Your task to perform on an android device: turn on showing notifications on the lock screen Image 0: 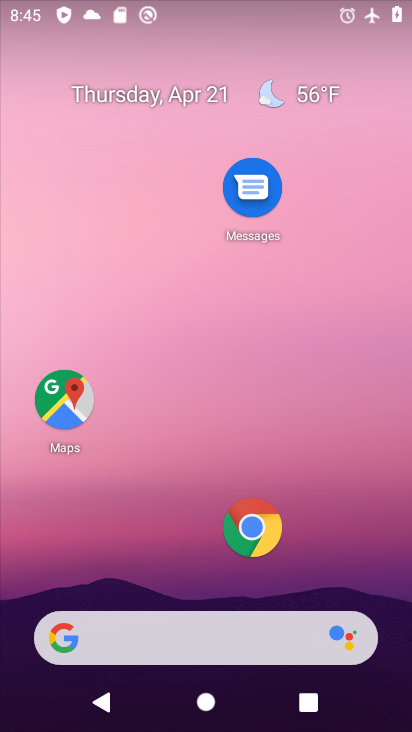
Step 0: drag from (154, 635) to (304, 111)
Your task to perform on an android device: turn on showing notifications on the lock screen Image 1: 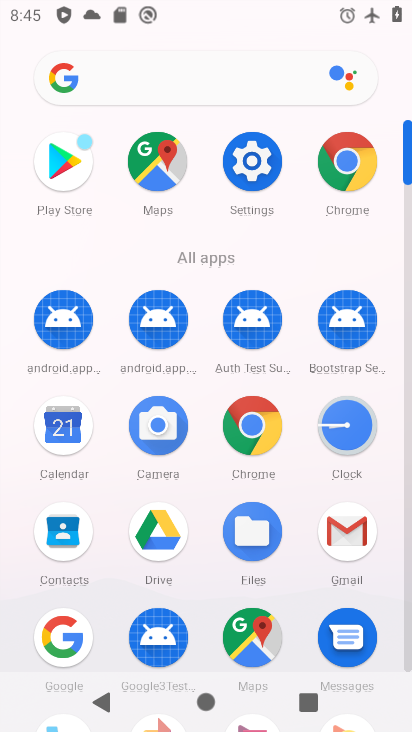
Step 1: click (254, 172)
Your task to perform on an android device: turn on showing notifications on the lock screen Image 2: 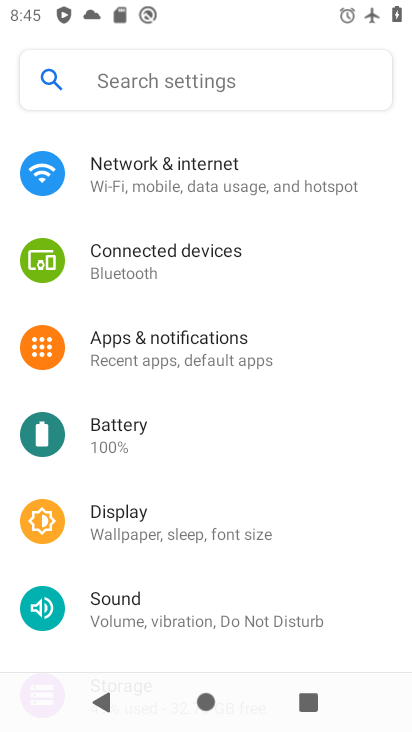
Step 2: click (207, 345)
Your task to perform on an android device: turn on showing notifications on the lock screen Image 3: 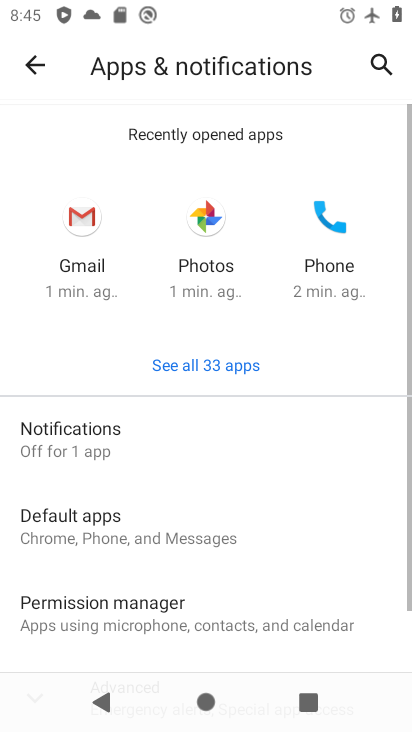
Step 3: click (85, 438)
Your task to perform on an android device: turn on showing notifications on the lock screen Image 4: 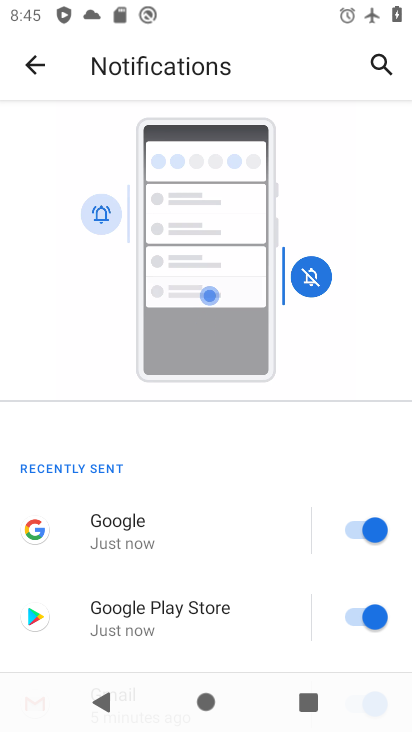
Step 4: drag from (130, 621) to (303, 84)
Your task to perform on an android device: turn on showing notifications on the lock screen Image 5: 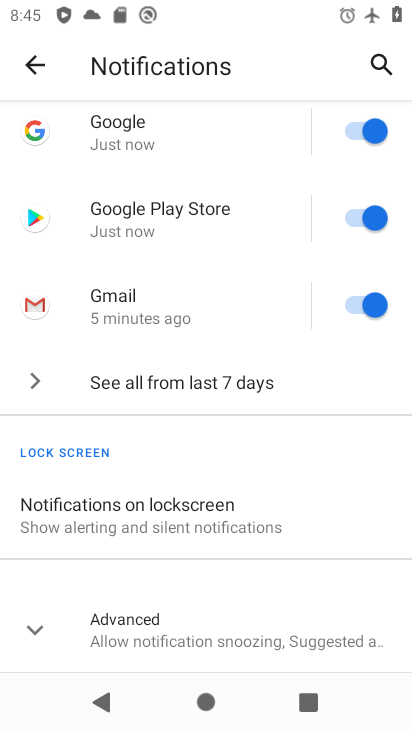
Step 5: click (169, 516)
Your task to perform on an android device: turn on showing notifications on the lock screen Image 6: 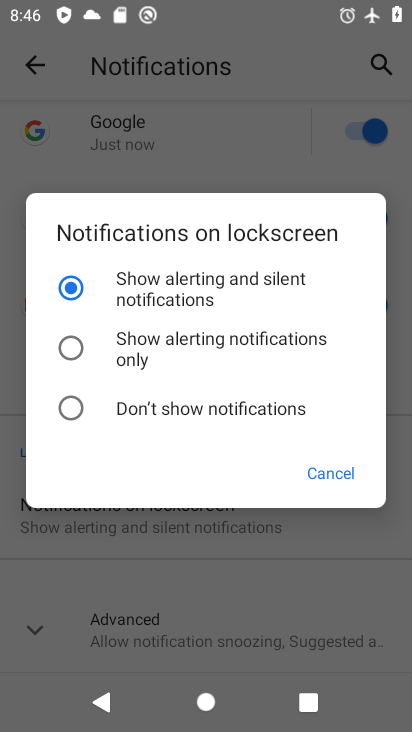
Step 6: task complete